Your task to perform on an android device: turn off smart reply in the gmail app Image 0: 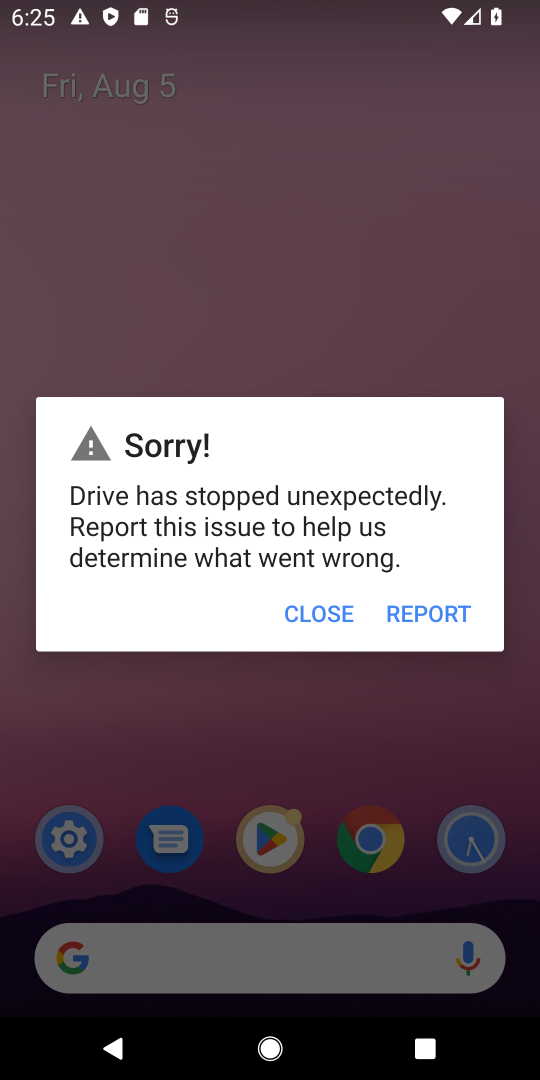
Step 0: click (310, 622)
Your task to perform on an android device: turn off smart reply in the gmail app Image 1: 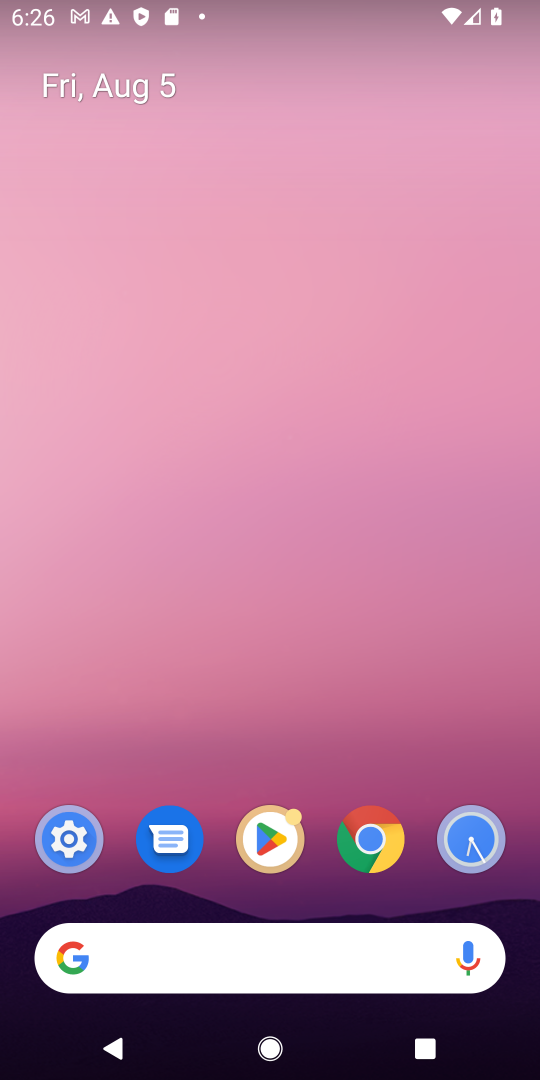
Step 1: drag from (392, 771) to (368, 28)
Your task to perform on an android device: turn off smart reply in the gmail app Image 2: 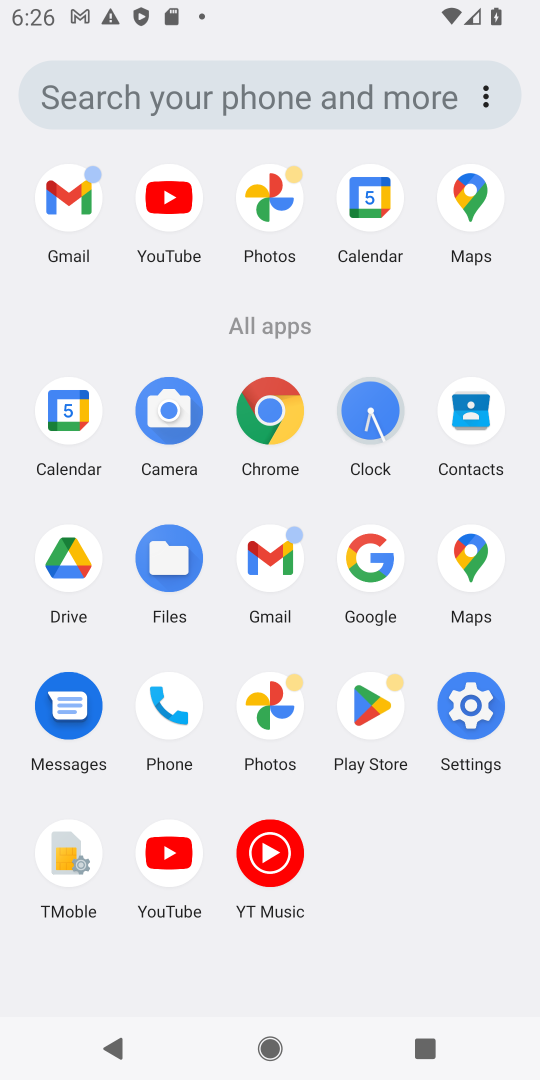
Step 2: click (80, 221)
Your task to perform on an android device: turn off smart reply in the gmail app Image 3: 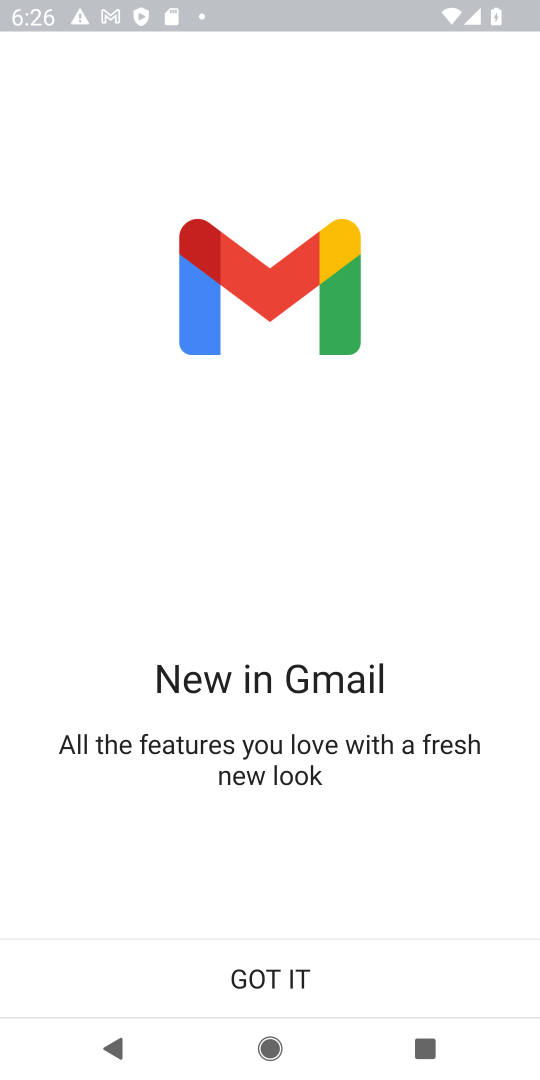
Step 3: click (267, 981)
Your task to perform on an android device: turn off smart reply in the gmail app Image 4: 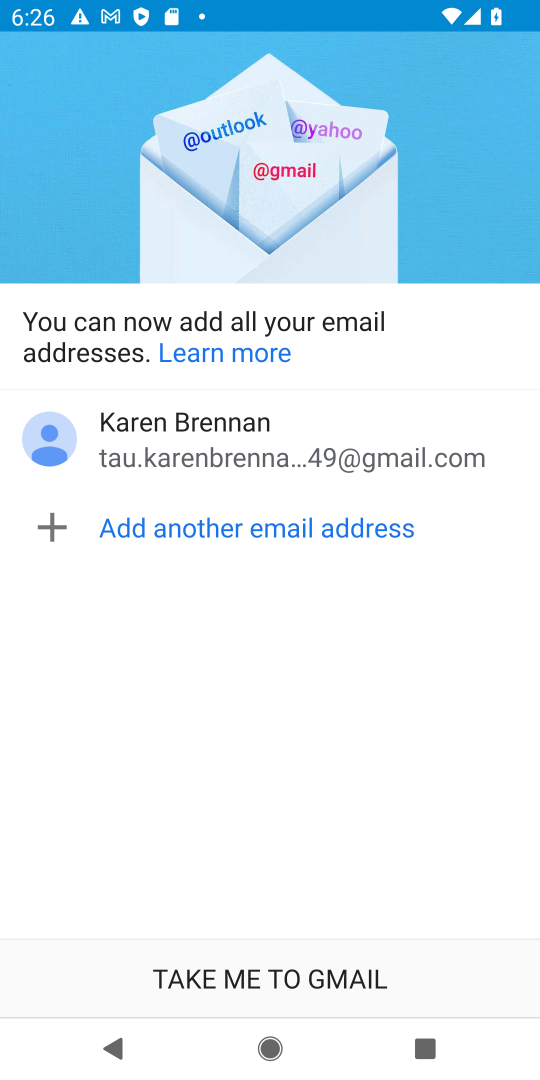
Step 4: click (267, 981)
Your task to perform on an android device: turn off smart reply in the gmail app Image 5: 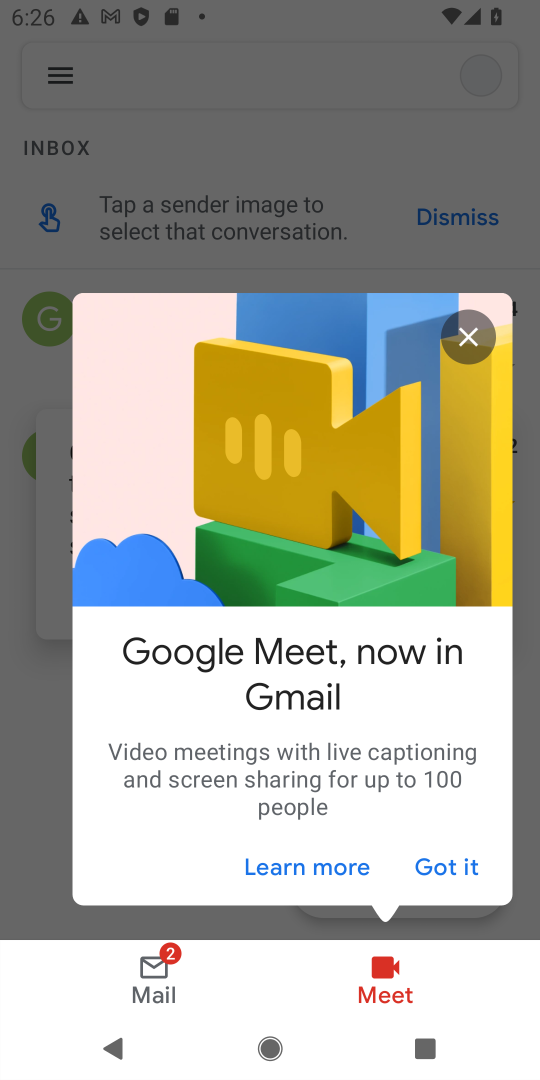
Step 5: click (429, 607)
Your task to perform on an android device: turn off smart reply in the gmail app Image 6: 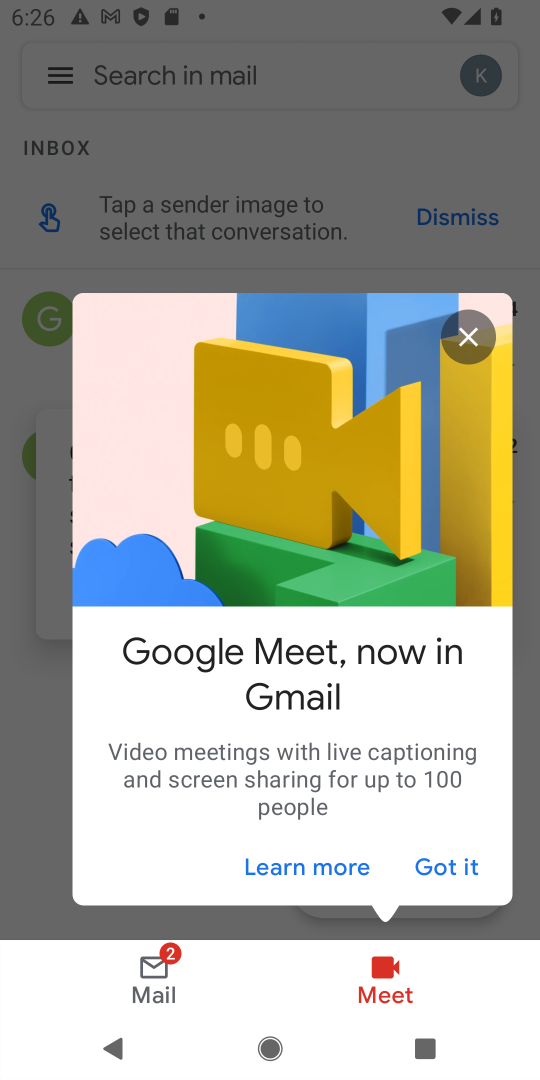
Step 6: click (455, 872)
Your task to perform on an android device: turn off smart reply in the gmail app Image 7: 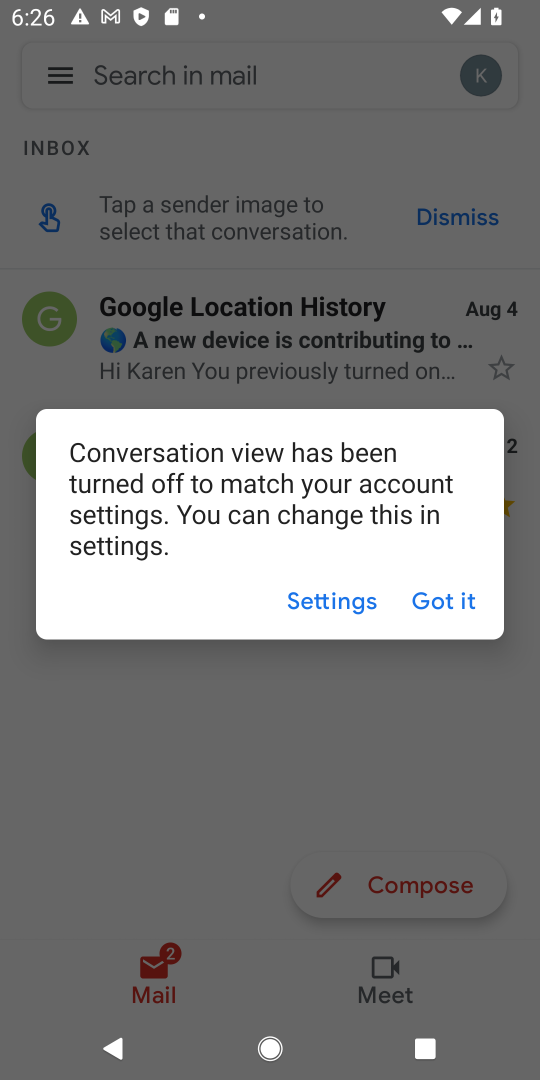
Step 7: click (449, 603)
Your task to perform on an android device: turn off smart reply in the gmail app Image 8: 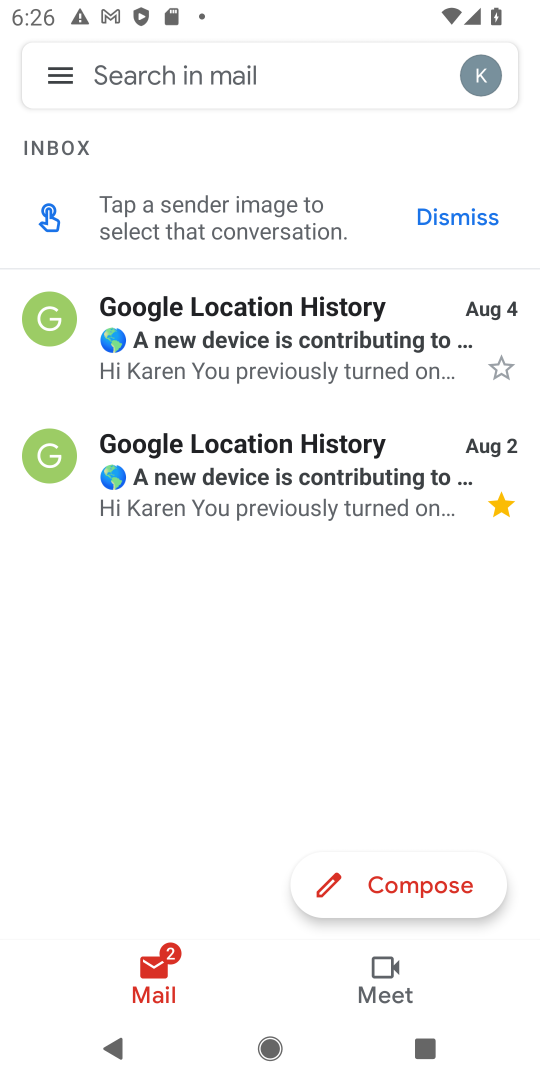
Step 8: click (70, 82)
Your task to perform on an android device: turn off smart reply in the gmail app Image 9: 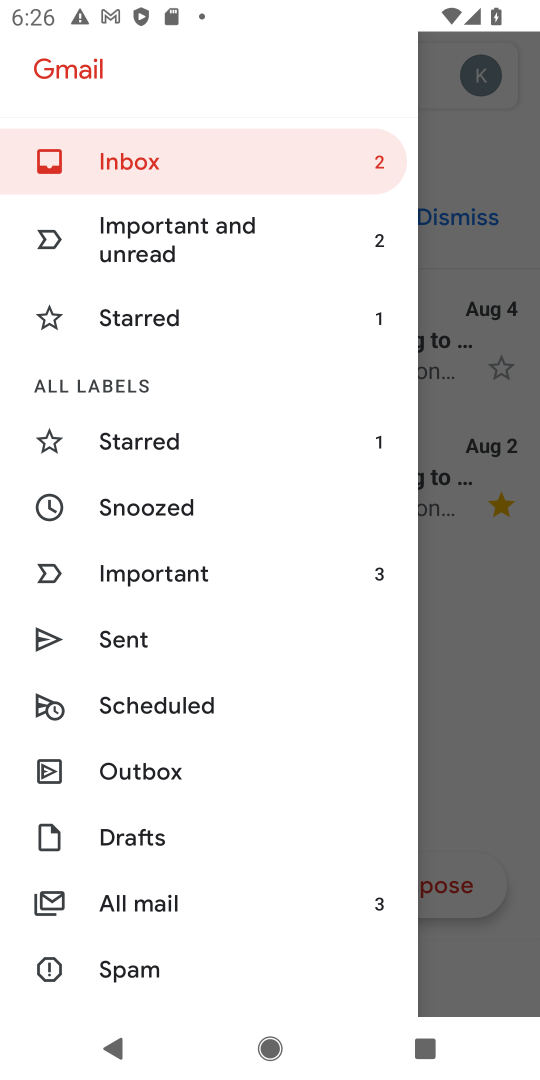
Step 9: drag from (214, 948) to (215, 300)
Your task to perform on an android device: turn off smart reply in the gmail app Image 10: 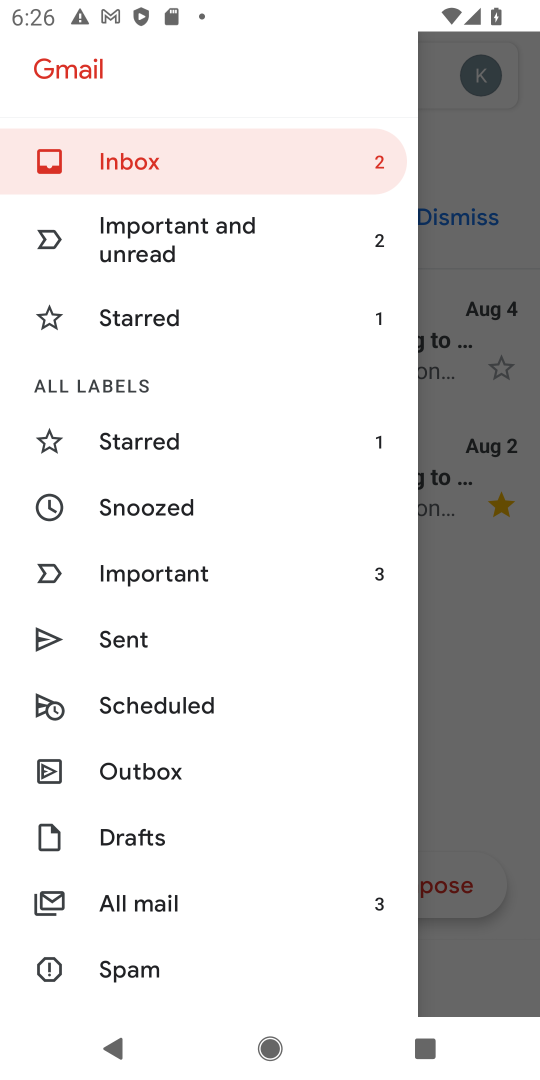
Step 10: drag from (173, 954) to (142, 219)
Your task to perform on an android device: turn off smart reply in the gmail app Image 11: 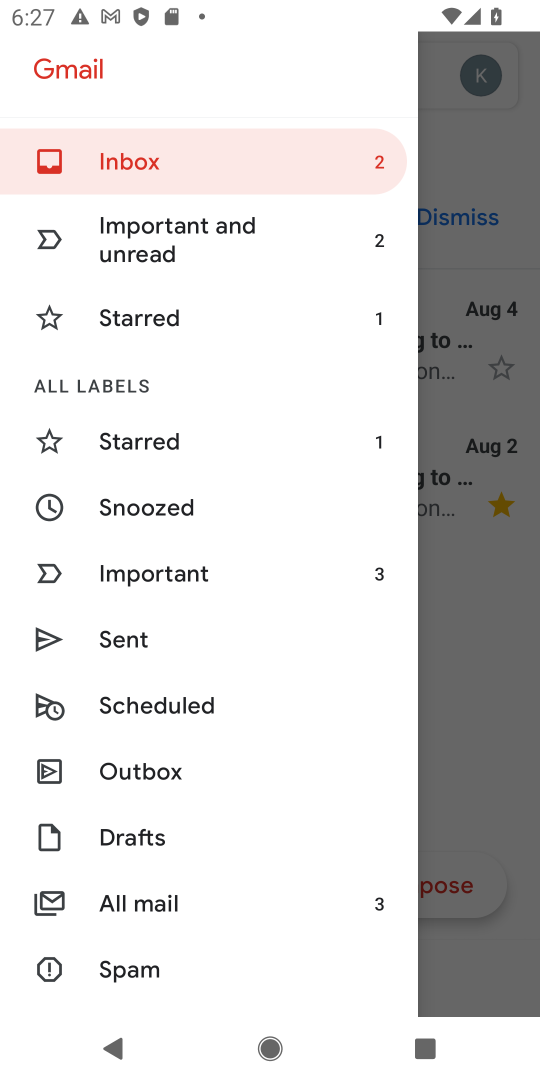
Step 11: drag from (205, 916) to (243, 214)
Your task to perform on an android device: turn off smart reply in the gmail app Image 12: 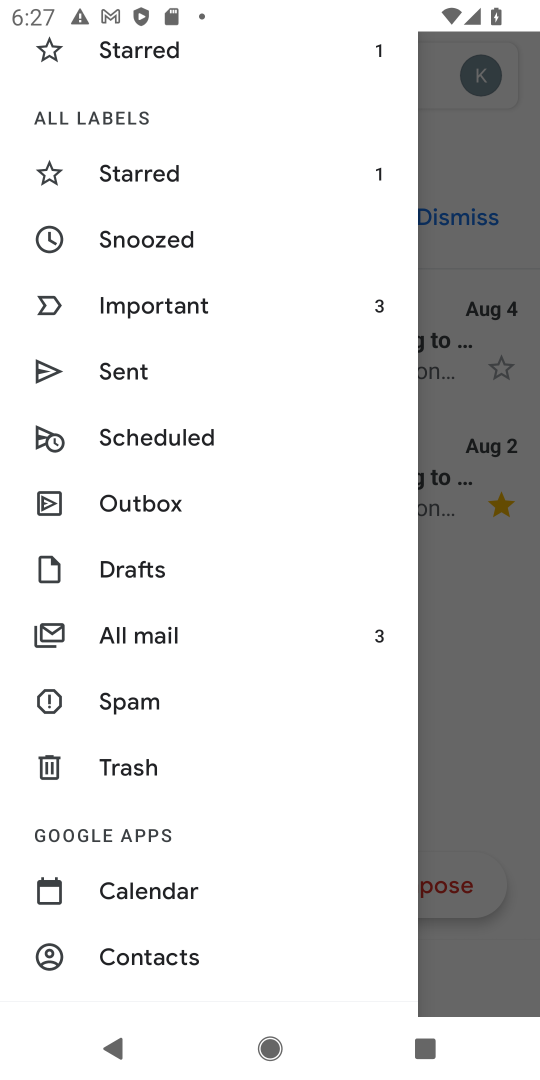
Step 12: drag from (244, 970) to (279, 306)
Your task to perform on an android device: turn off smart reply in the gmail app Image 13: 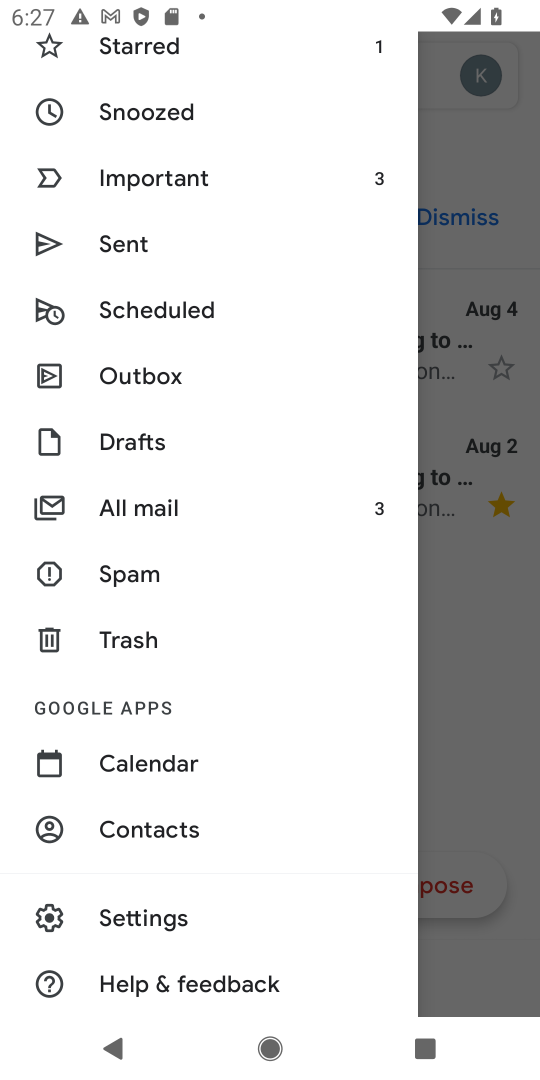
Step 13: click (223, 920)
Your task to perform on an android device: turn off smart reply in the gmail app Image 14: 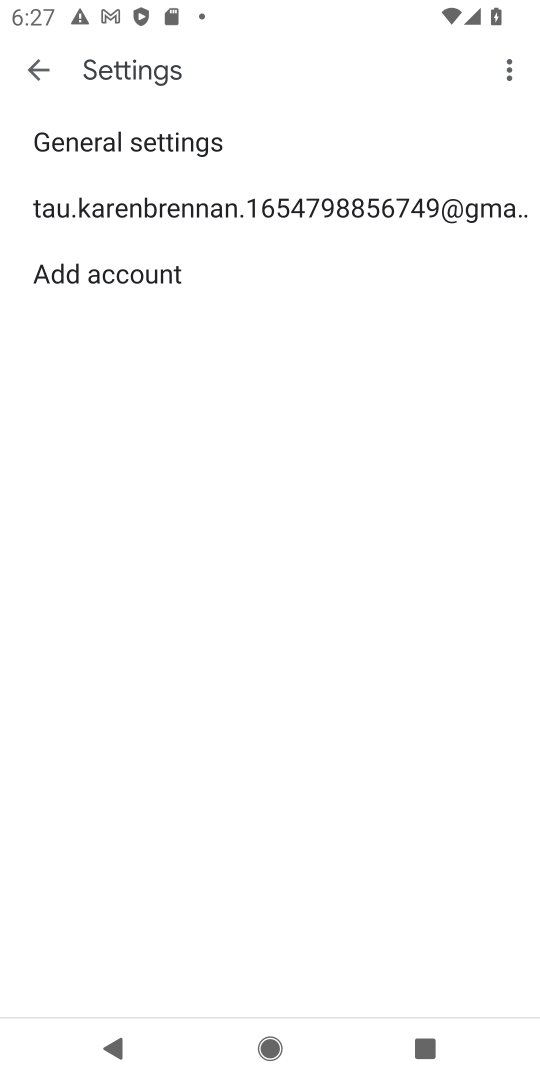
Step 14: click (275, 207)
Your task to perform on an android device: turn off smart reply in the gmail app Image 15: 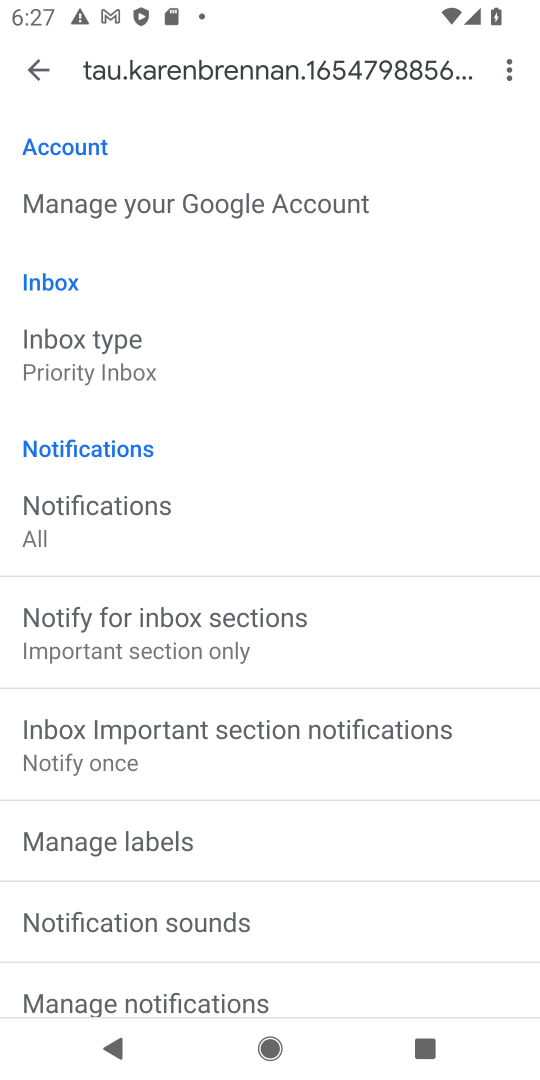
Step 15: drag from (325, 1012) to (358, 30)
Your task to perform on an android device: turn off smart reply in the gmail app Image 16: 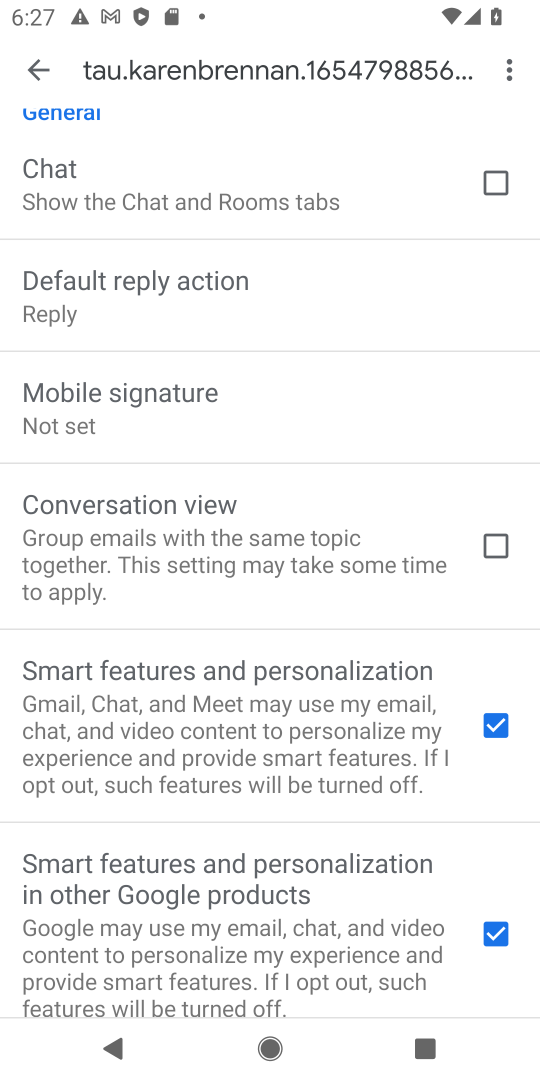
Step 16: drag from (284, 495) to (294, 248)
Your task to perform on an android device: turn off smart reply in the gmail app Image 17: 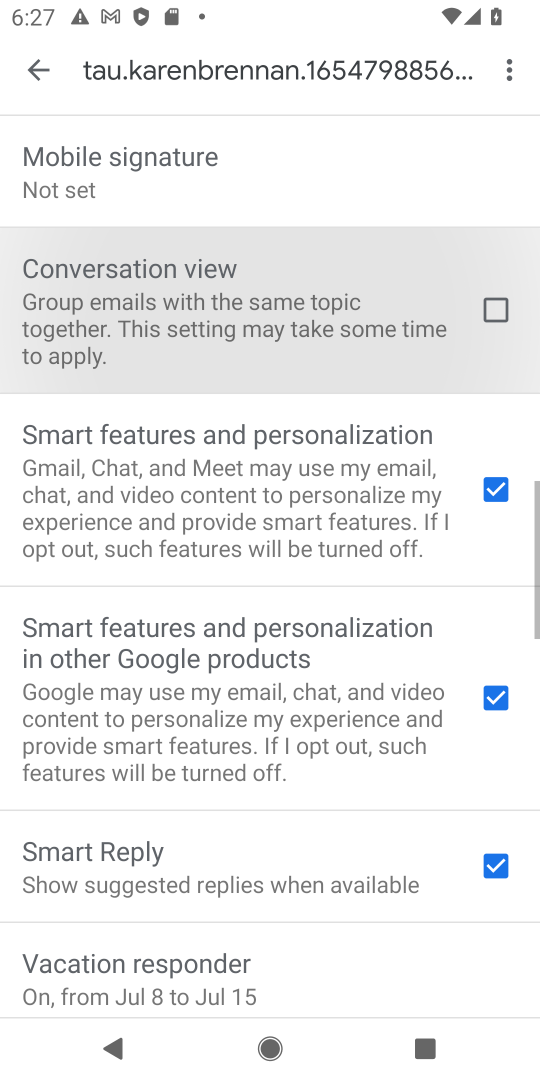
Step 17: drag from (358, 710) to (345, 401)
Your task to perform on an android device: turn off smart reply in the gmail app Image 18: 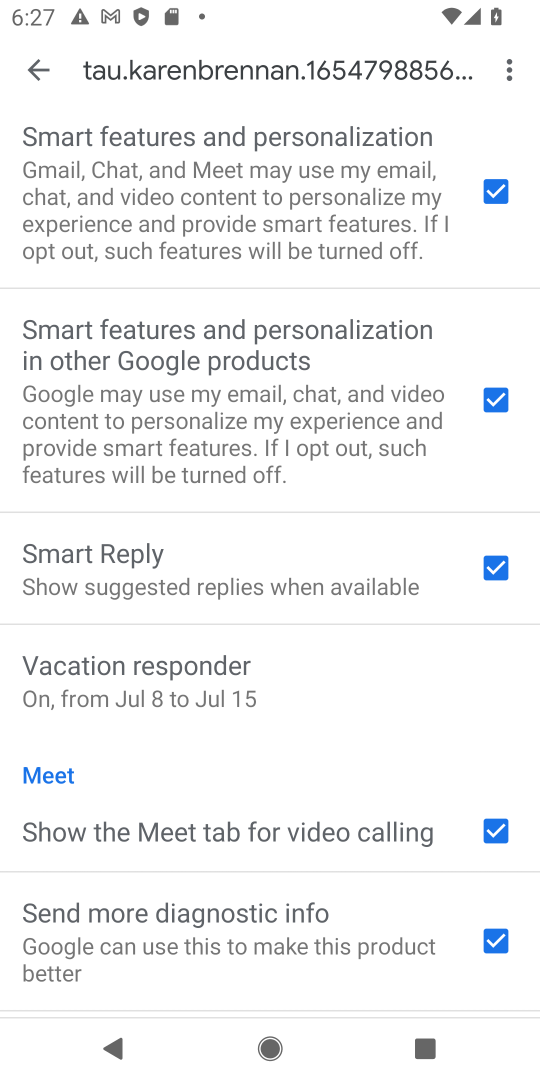
Step 18: click (497, 562)
Your task to perform on an android device: turn off smart reply in the gmail app Image 19: 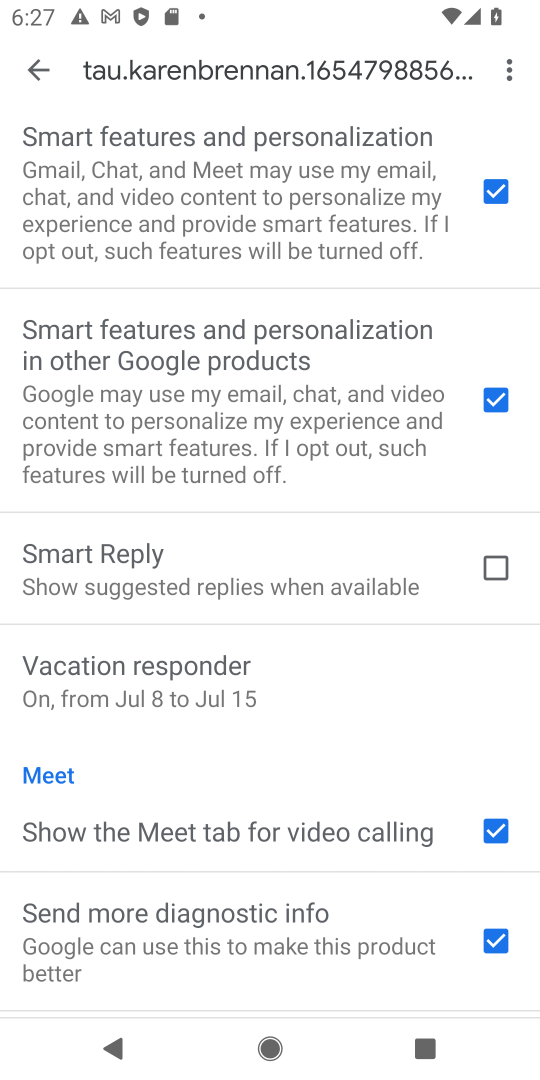
Step 19: task complete